Your task to perform on an android device: move an email to a new category in the gmail app Image 0: 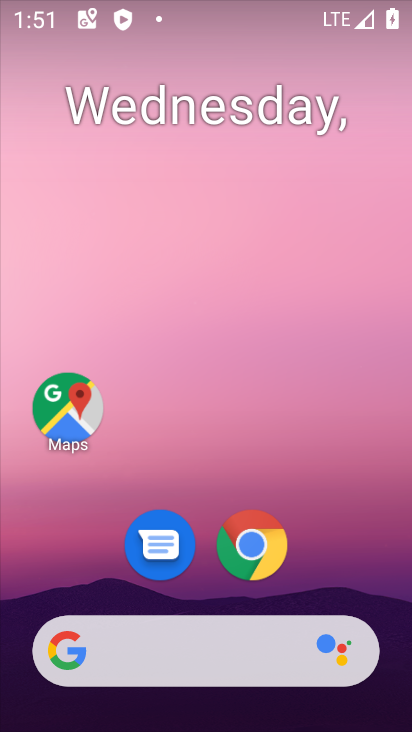
Step 0: drag from (301, 323) to (296, 89)
Your task to perform on an android device: move an email to a new category in the gmail app Image 1: 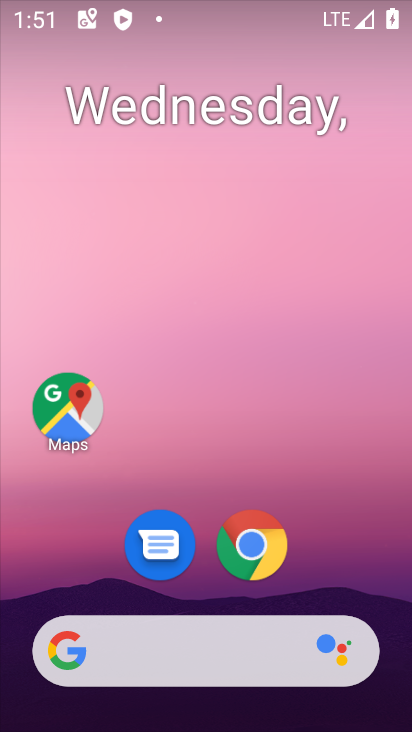
Step 1: drag from (336, 556) to (342, 166)
Your task to perform on an android device: move an email to a new category in the gmail app Image 2: 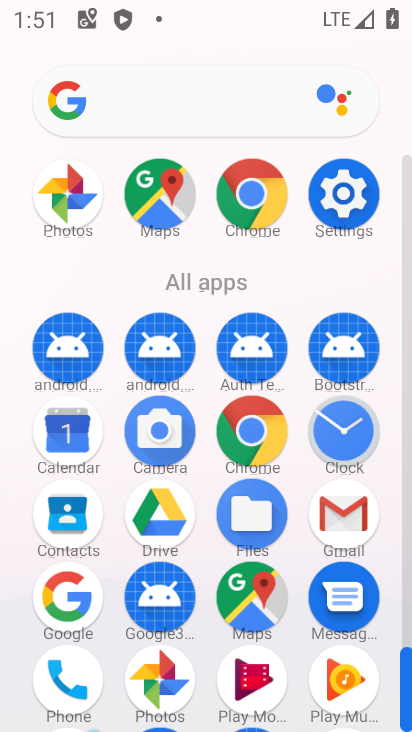
Step 2: click (336, 507)
Your task to perform on an android device: move an email to a new category in the gmail app Image 3: 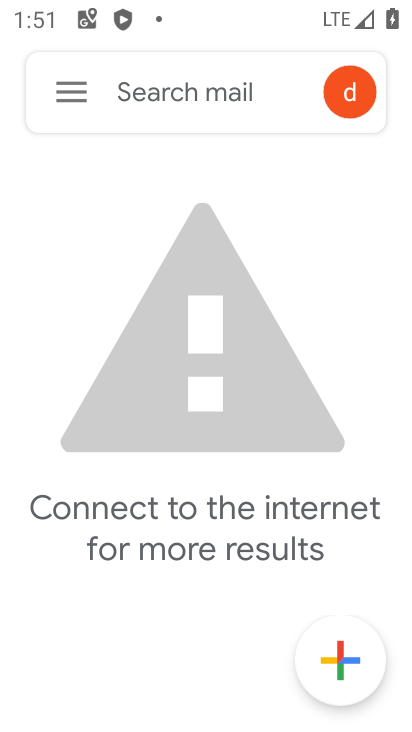
Step 3: click (76, 83)
Your task to perform on an android device: move an email to a new category in the gmail app Image 4: 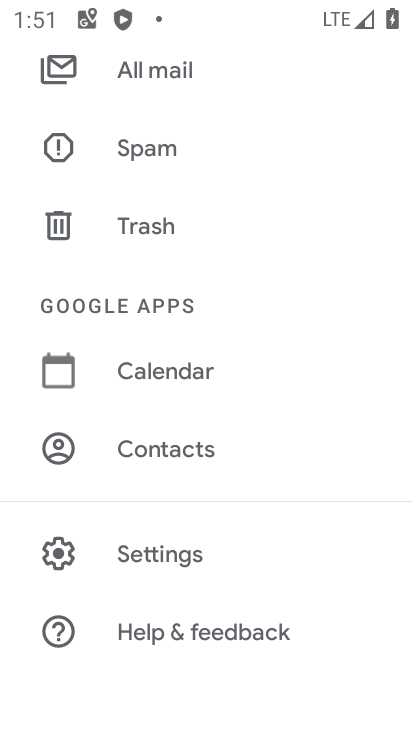
Step 4: drag from (214, 216) to (215, 559)
Your task to perform on an android device: move an email to a new category in the gmail app Image 5: 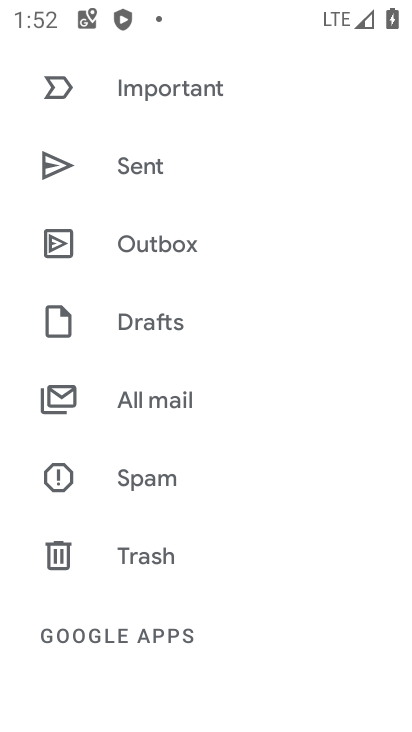
Step 5: drag from (209, 235) to (166, 502)
Your task to perform on an android device: move an email to a new category in the gmail app Image 6: 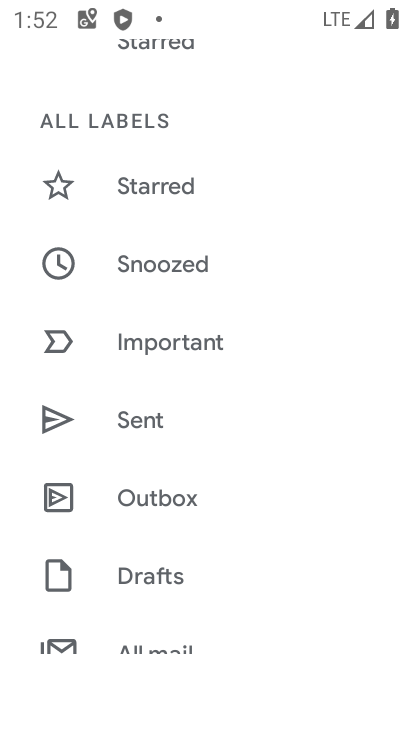
Step 6: drag from (157, 529) to (210, 90)
Your task to perform on an android device: move an email to a new category in the gmail app Image 7: 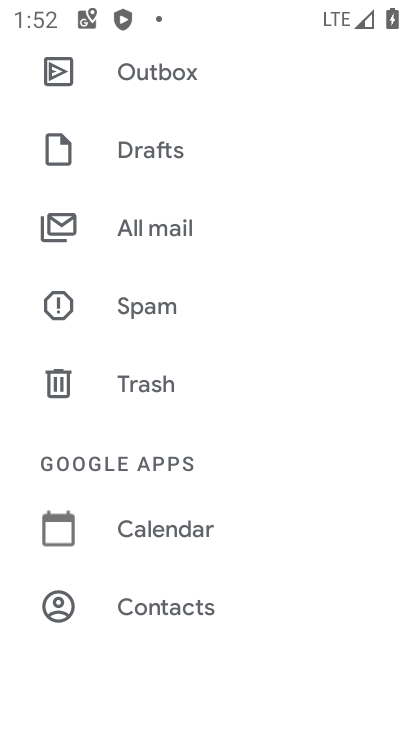
Step 7: click (142, 216)
Your task to perform on an android device: move an email to a new category in the gmail app Image 8: 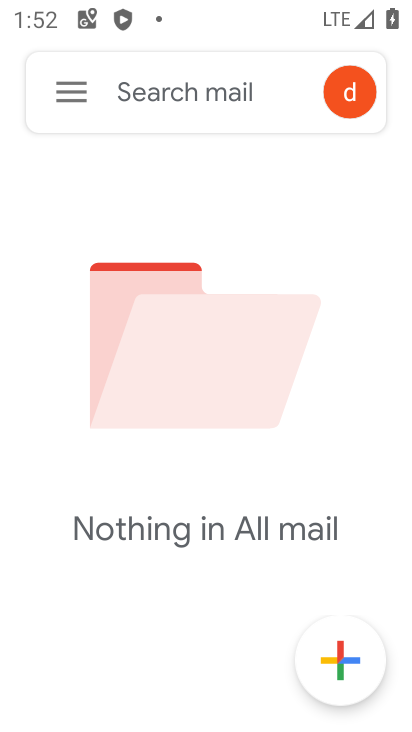
Step 8: task complete